Your task to perform on an android device: What's the weather today? Image 0: 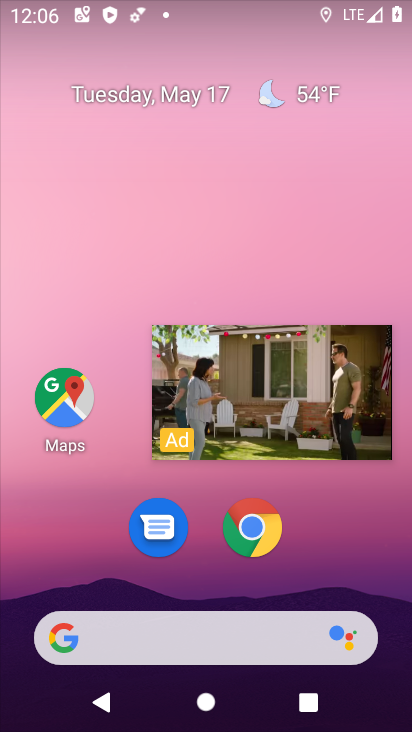
Step 0: click (372, 349)
Your task to perform on an android device: What's the weather today? Image 1: 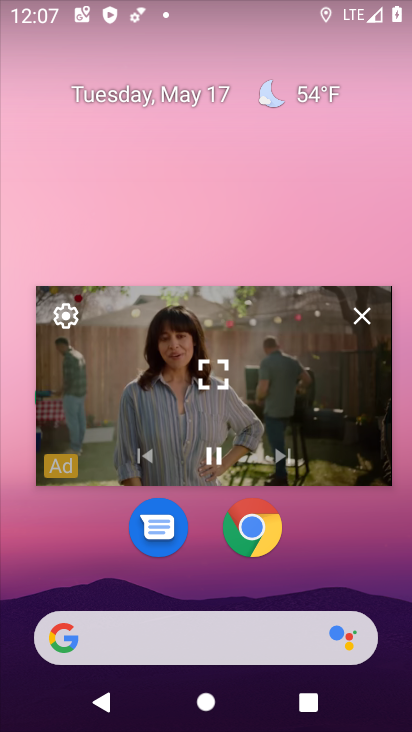
Step 1: click (378, 314)
Your task to perform on an android device: What's the weather today? Image 2: 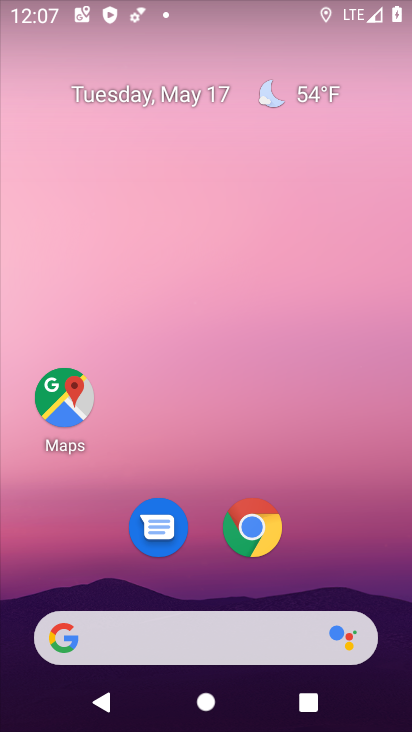
Step 2: click (141, 648)
Your task to perform on an android device: What's the weather today? Image 3: 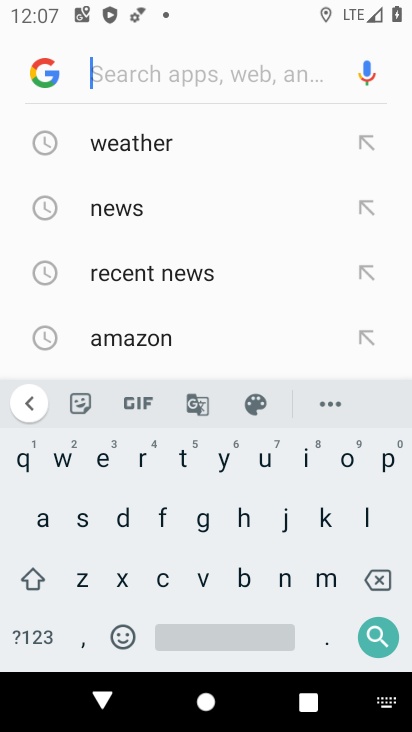
Step 3: click (138, 144)
Your task to perform on an android device: What's the weather today? Image 4: 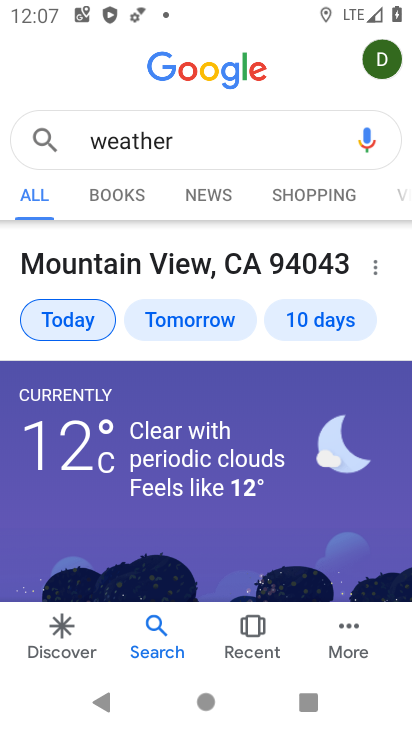
Step 4: task complete